Your task to perform on an android device: toggle priority inbox in the gmail app Image 0: 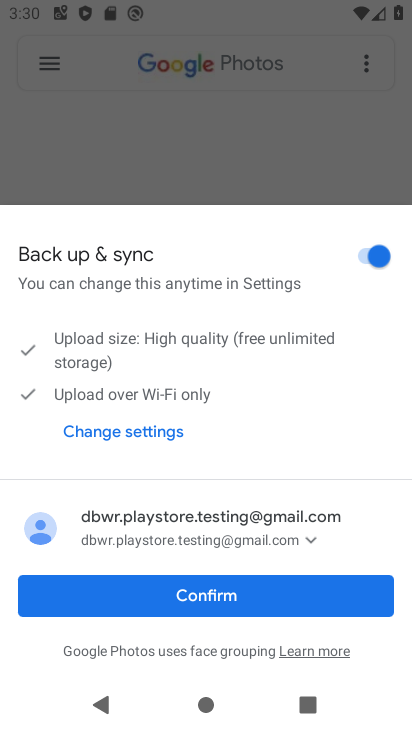
Step 0: press home button
Your task to perform on an android device: toggle priority inbox in the gmail app Image 1: 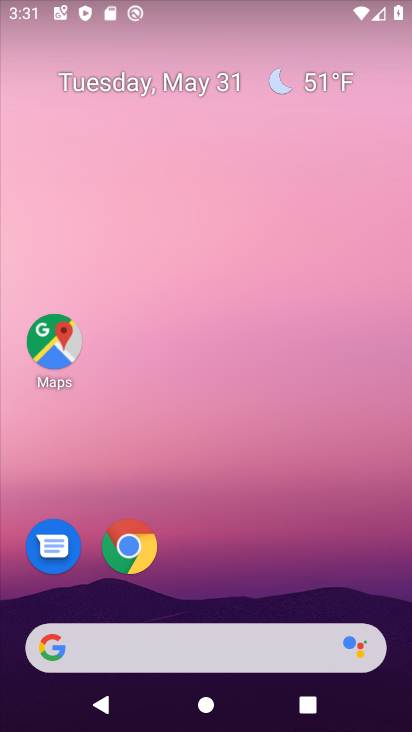
Step 1: drag from (208, 575) to (205, 433)
Your task to perform on an android device: toggle priority inbox in the gmail app Image 2: 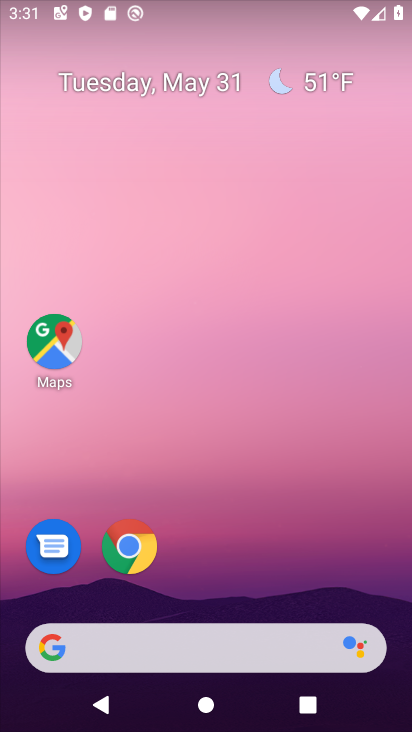
Step 2: drag from (238, 567) to (228, 247)
Your task to perform on an android device: toggle priority inbox in the gmail app Image 3: 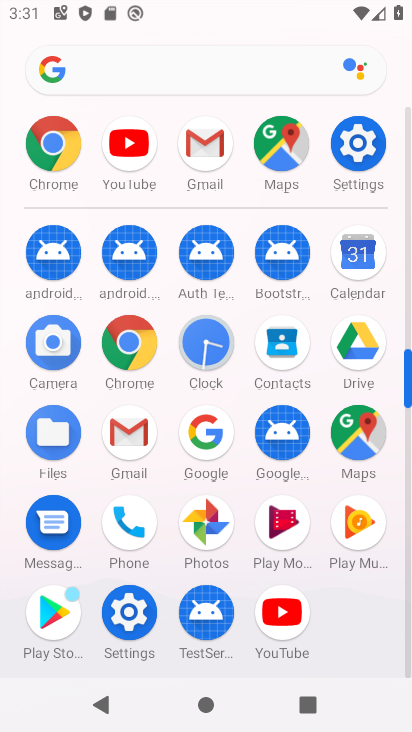
Step 3: click (146, 429)
Your task to perform on an android device: toggle priority inbox in the gmail app Image 4: 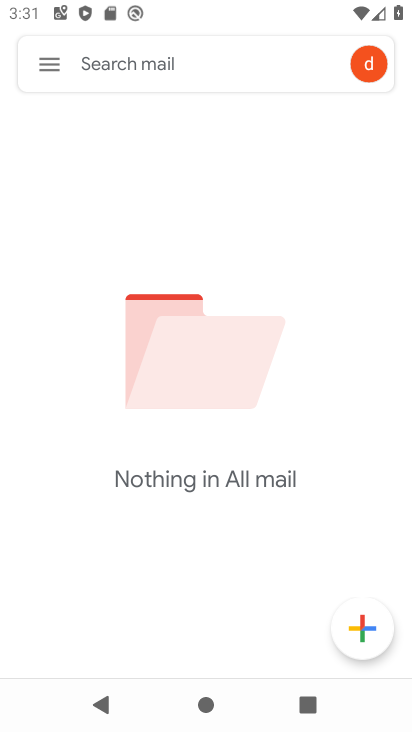
Step 4: click (45, 62)
Your task to perform on an android device: toggle priority inbox in the gmail app Image 5: 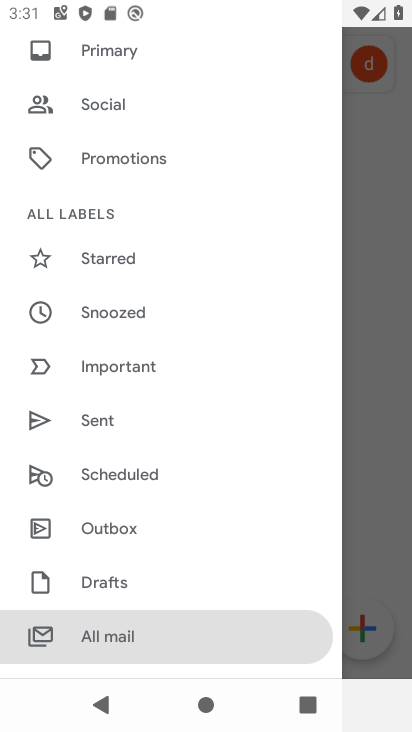
Step 5: drag from (125, 502) to (127, 244)
Your task to perform on an android device: toggle priority inbox in the gmail app Image 6: 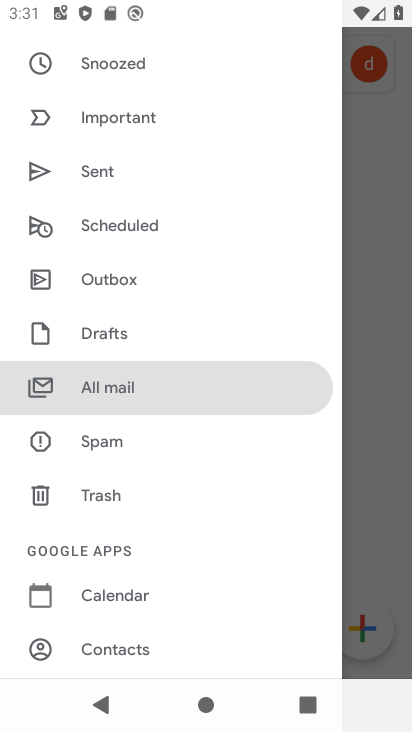
Step 6: drag from (118, 595) to (160, 369)
Your task to perform on an android device: toggle priority inbox in the gmail app Image 7: 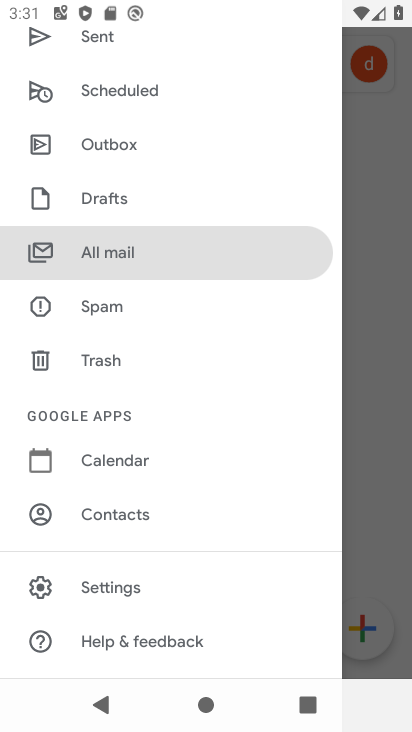
Step 7: click (97, 588)
Your task to perform on an android device: toggle priority inbox in the gmail app Image 8: 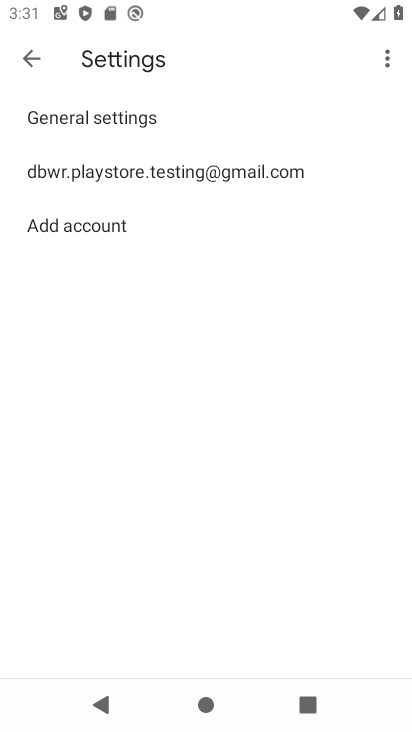
Step 8: click (152, 183)
Your task to perform on an android device: toggle priority inbox in the gmail app Image 9: 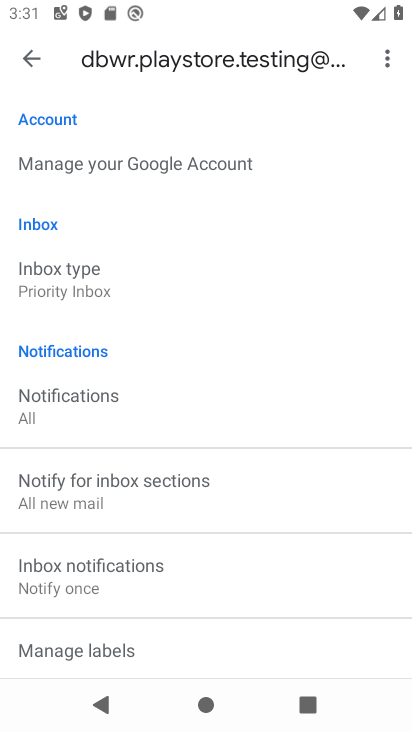
Step 9: click (64, 288)
Your task to perform on an android device: toggle priority inbox in the gmail app Image 10: 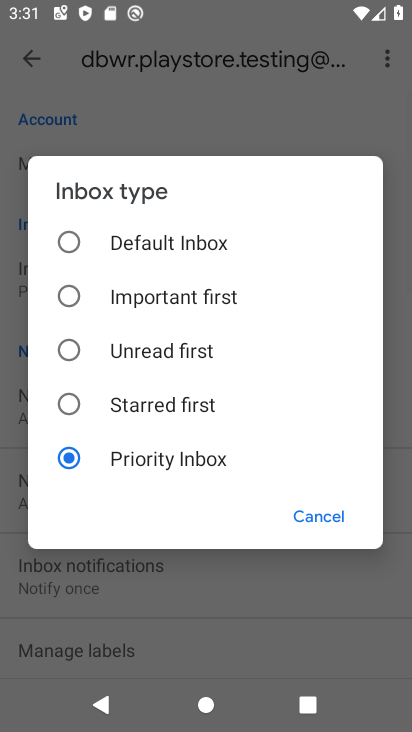
Step 10: click (66, 250)
Your task to perform on an android device: toggle priority inbox in the gmail app Image 11: 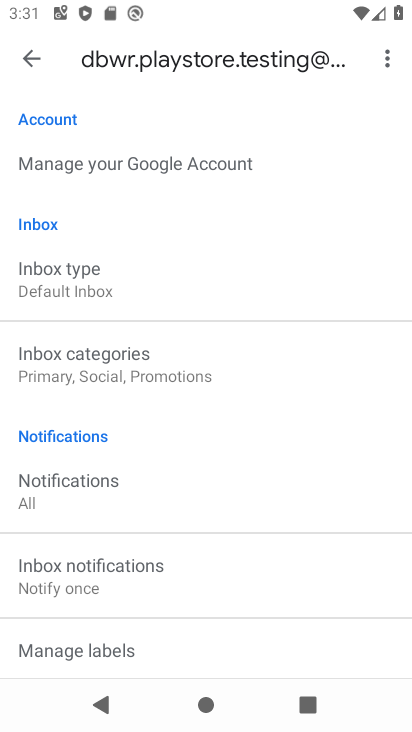
Step 11: task complete